Your task to perform on an android device: Open the calendar and show me this week's events? Image 0: 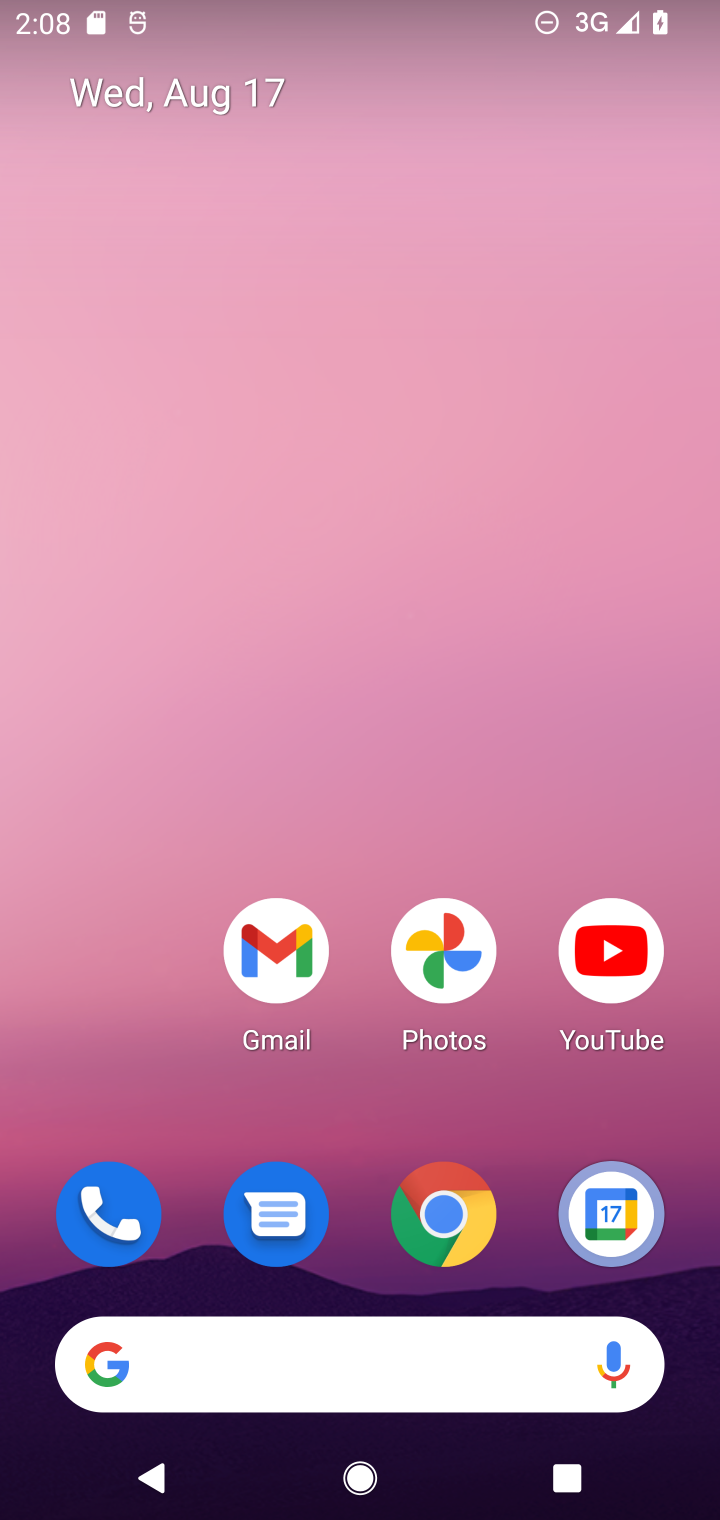
Step 0: click (602, 1212)
Your task to perform on an android device: Open the calendar and show me this week's events? Image 1: 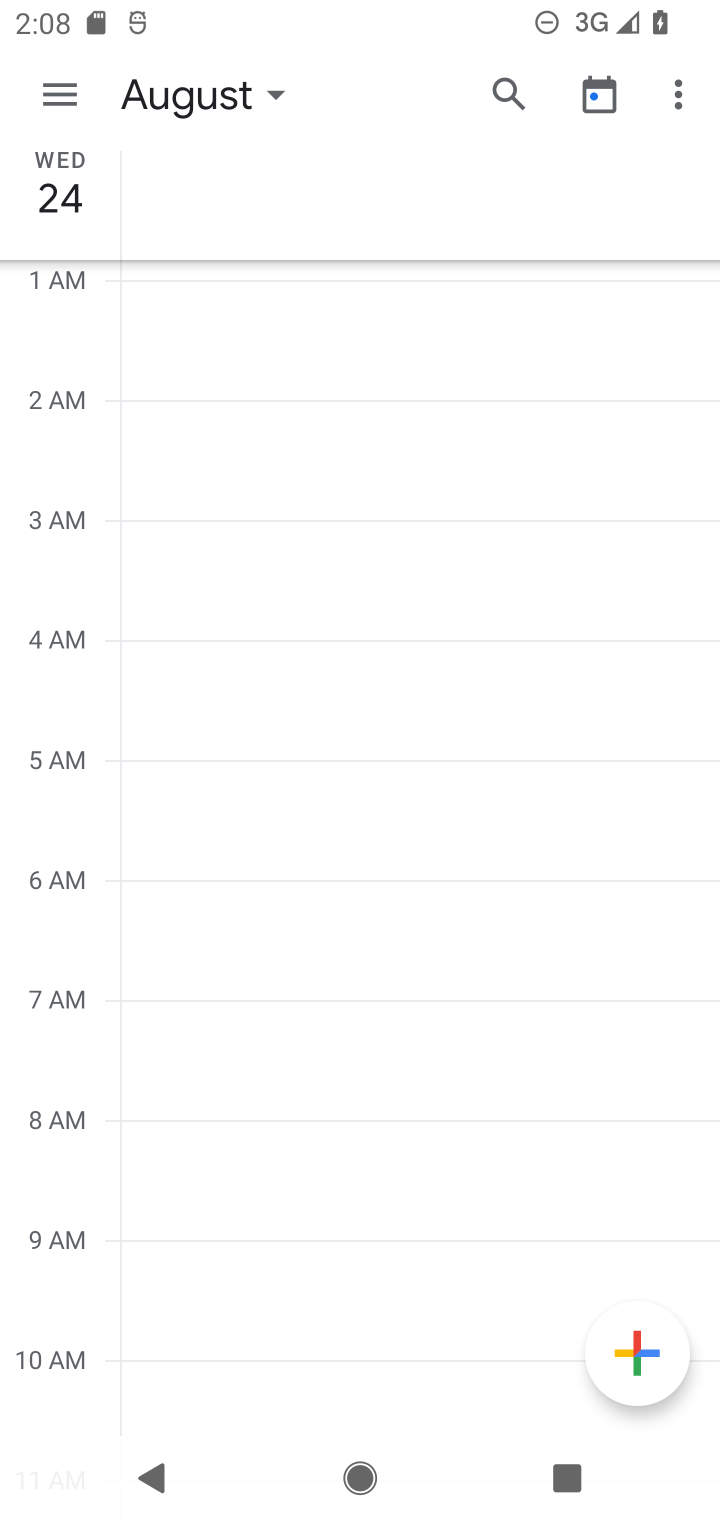
Step 1: click (56, 105)
Your task to perform on an android device: Open the calendar and show me this week's events? Image 2: 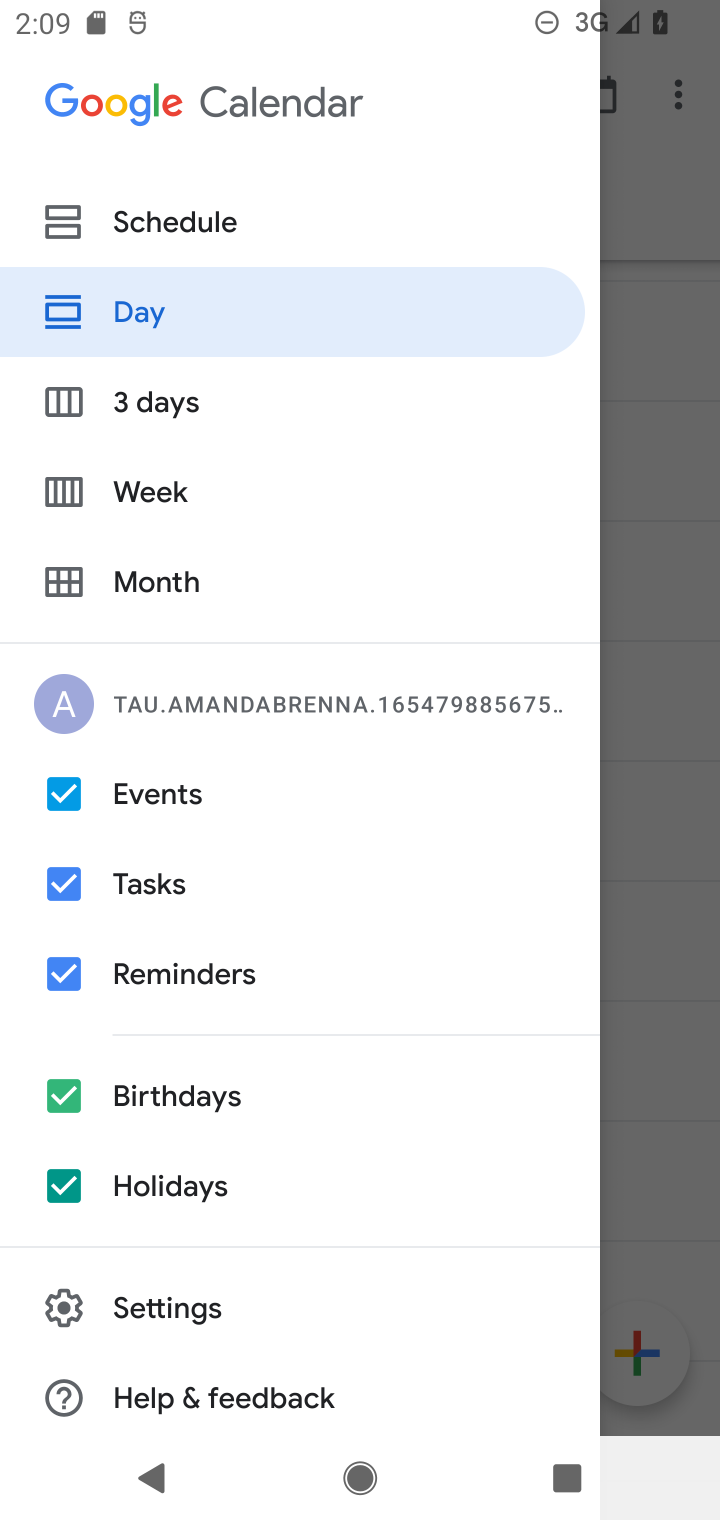
Step 2: click (145, 482)
Your task to perform on an android device: Open the calendar and show me this week's events? Image 3: 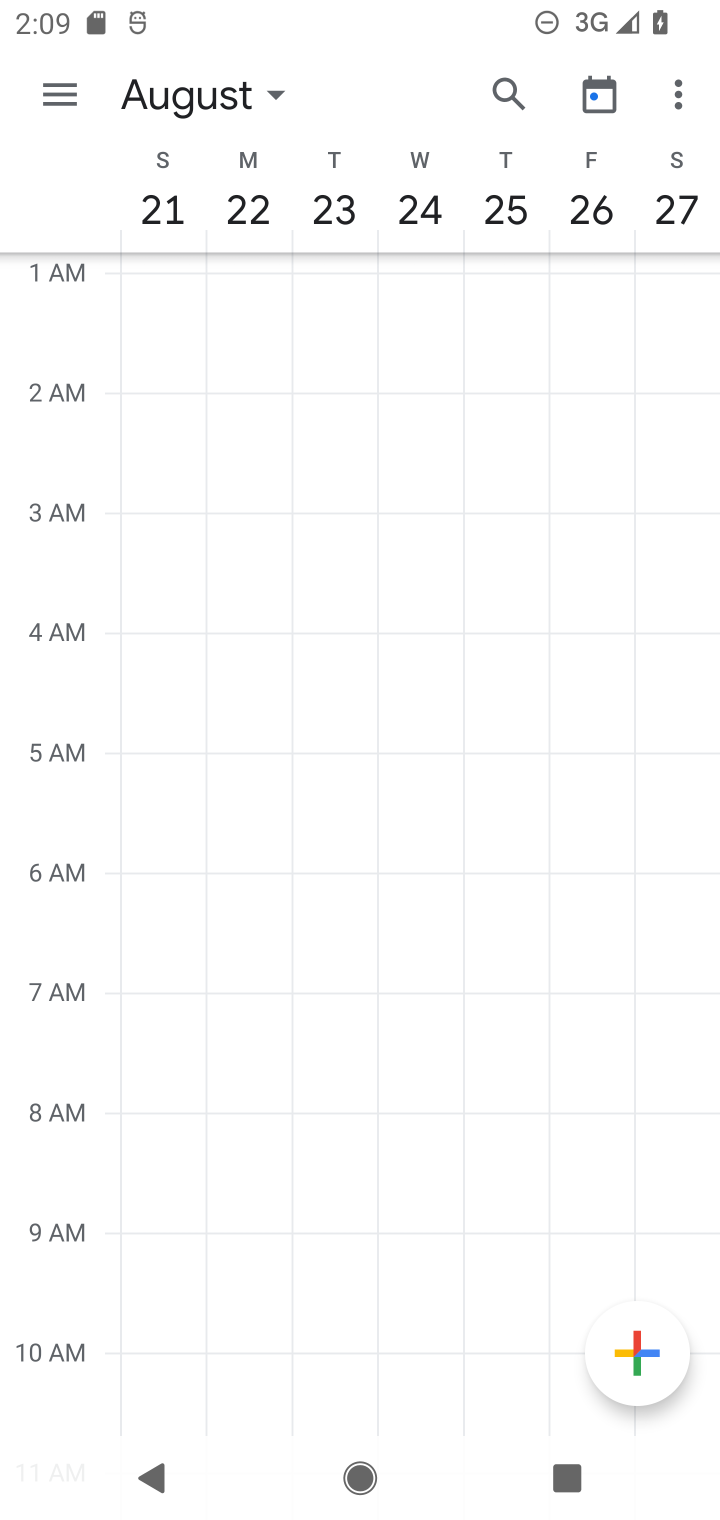
Step 3: click (259, 100)
Your task to perform on an android device: Open the calendar and show me this week's events? Image 4: 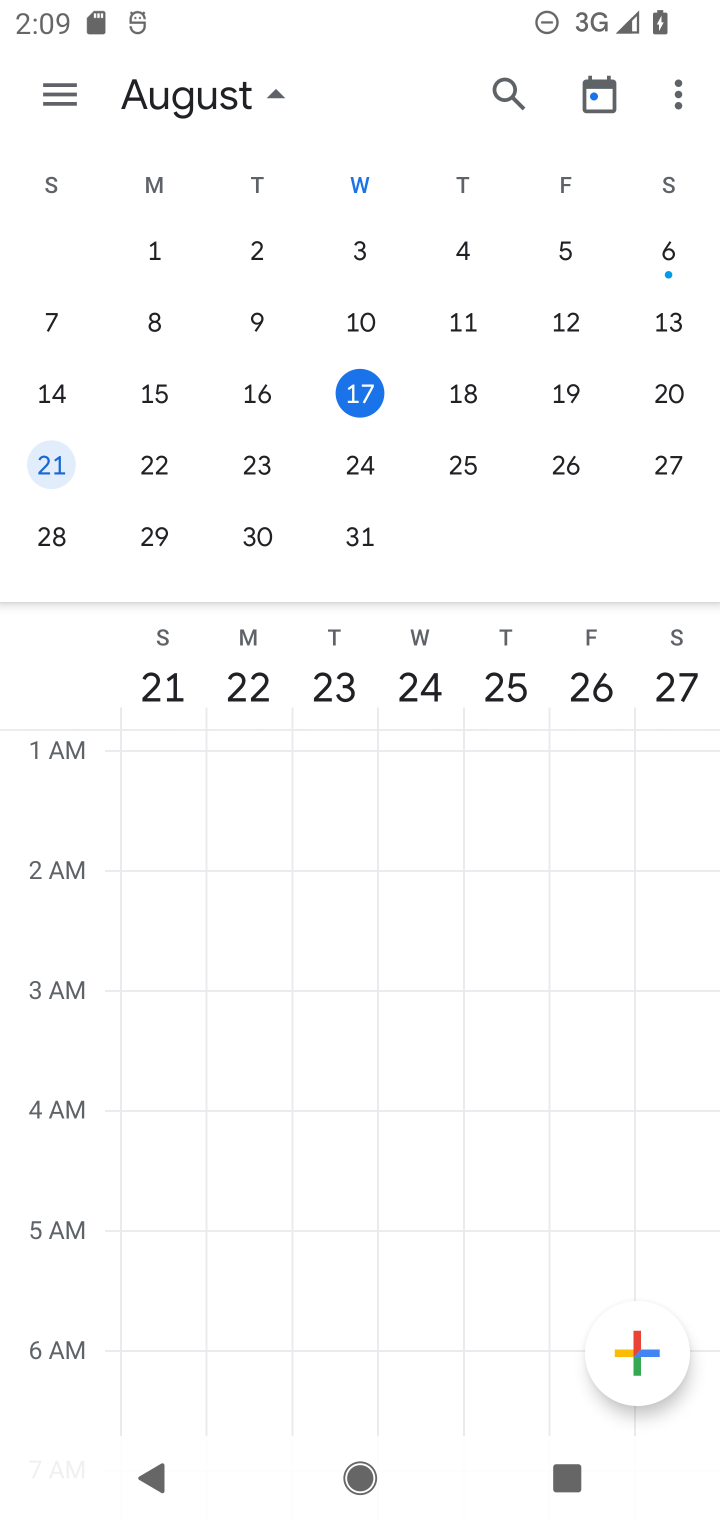
Step 4: click (357, 382)
Your task to perform on an android device: Open the calendar and show me this week's events? Image 5: 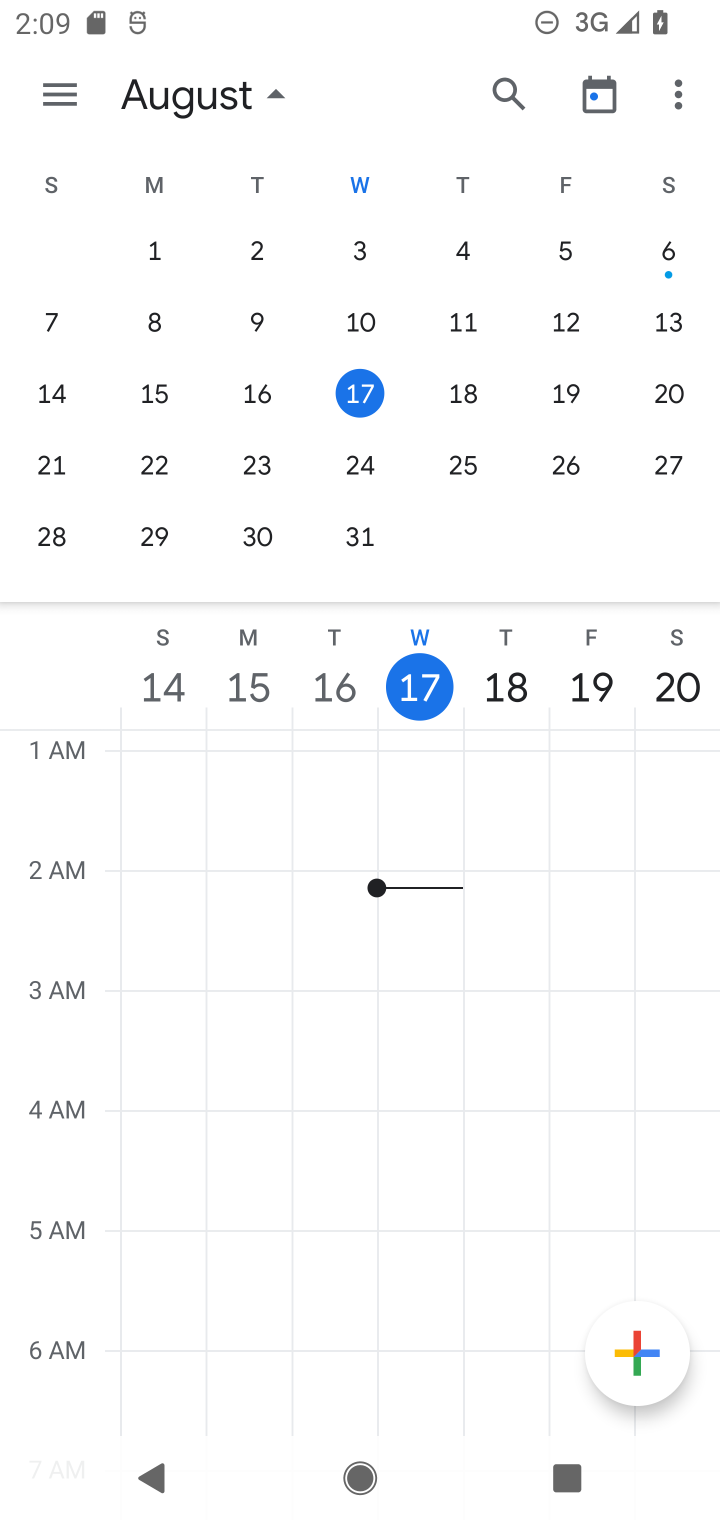
Step 5: task complete